Your task to perform on an android device: When is my next appointment? Image 0: 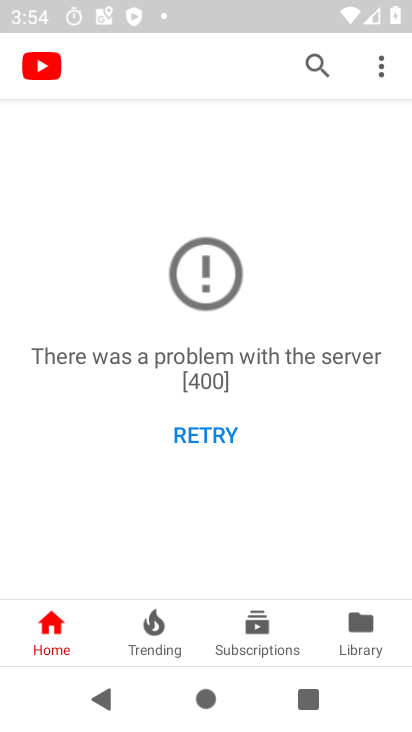
Step 0: press home button
Your task to perform on an android device: When is my next appointment? Image 1: 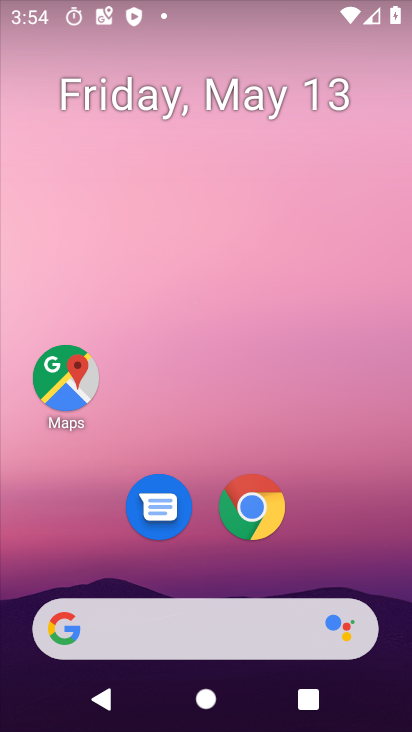
Step 1: drag from (298, 511) to (282, 212)
Your task to perform on an android device: When is my next appointment? Image 2: 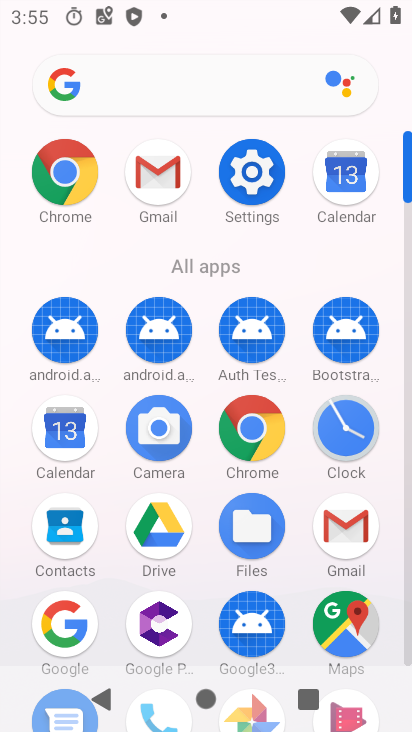
Step 2: click (66, 436)
Your task to perform on an android device: When is my next appointment? Image 3: 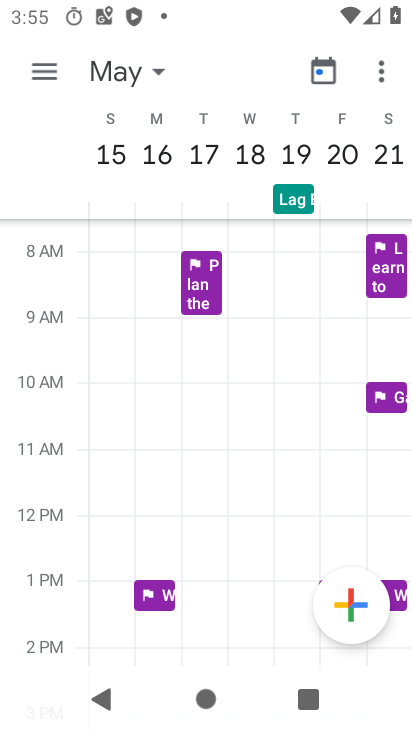
Step 3: click (72, 57)
Your task to perform on an android device: When is my next appointment? Image 4: 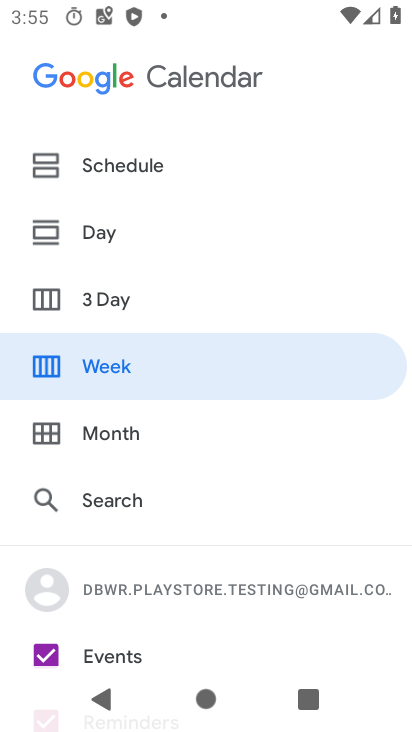
Step 4: click (166, 228)
Your task to perform on an android device: When is my next appointment? Image 5: 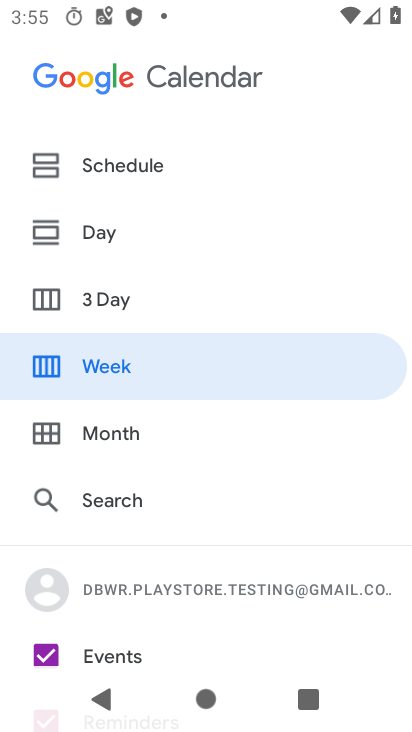
Step 5: click (147, 220)
Your task to perform on an android device: When is my next appointment? Image 6: 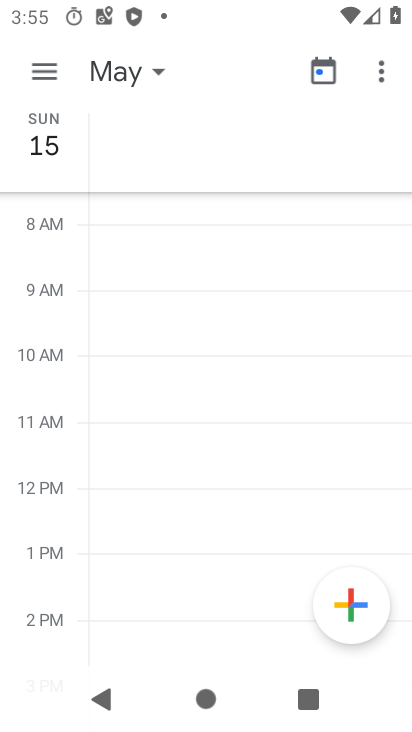
Step 6: task complete